Your task to perform on an android device: Show me popular videos on Youtube Image 0: 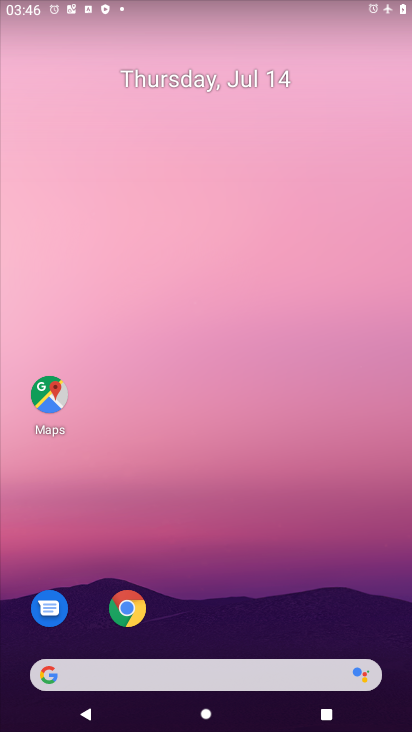
Step 0: drag from (386, 669) to (360, 194)
Your task to perform on an android device: Show me popular videos on Youtube Image 1: 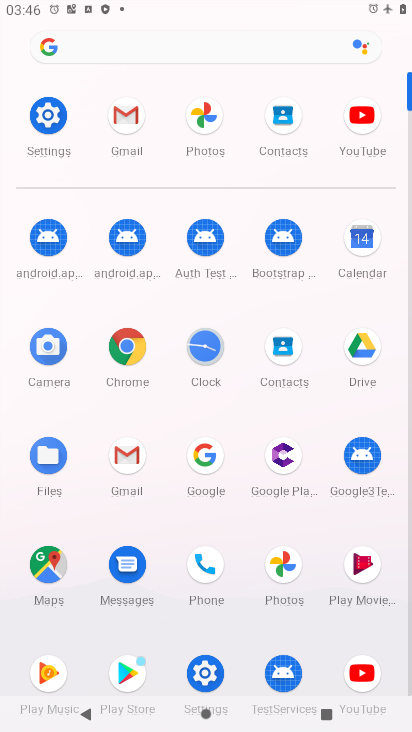
Step 1: click (360, 670)
Your task to perform on an android device: Show me popular videos on Youtube Image 2: 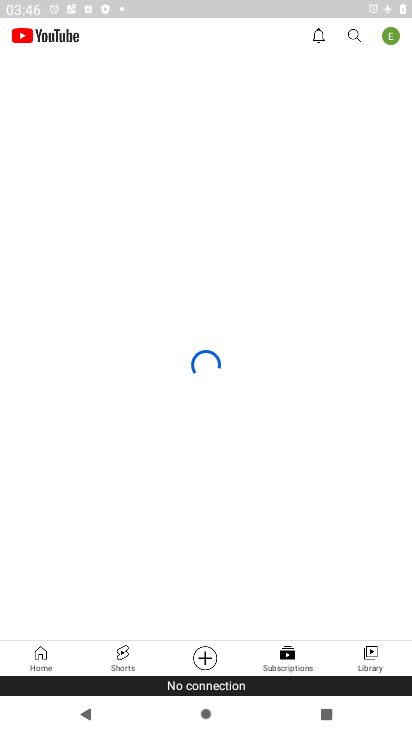
Step 2: click (30, 646)
Your task to perform on an android device: Show me popular videos on Youtube Image 3: 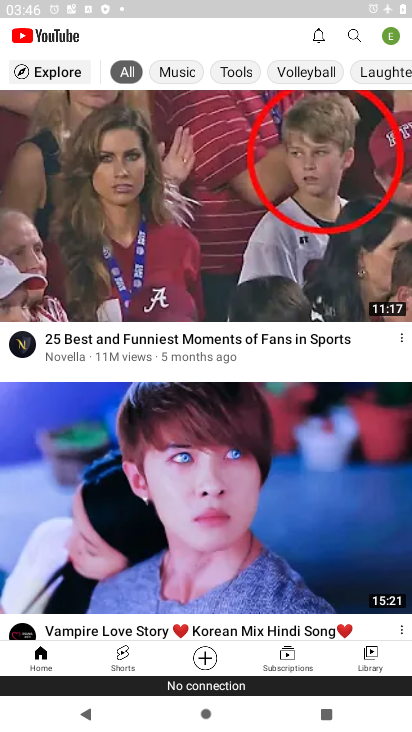
Step 3: click (51, 71)
Your task to perform on an android device: Show me popular videos on Youtube Image 4: 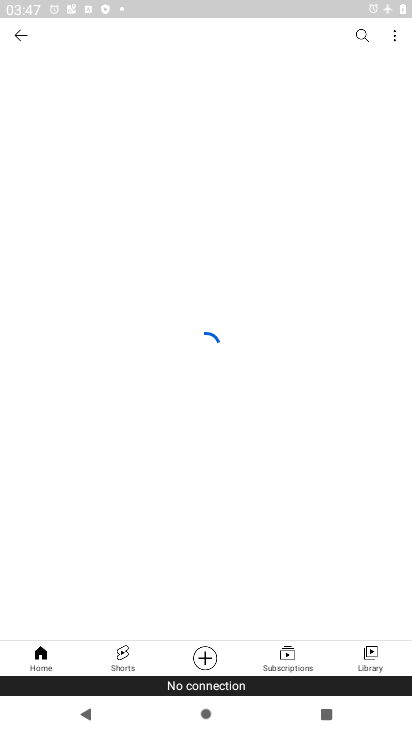
Step 4: task complete